Your task to perform on an android device: change the upload size in google photos Image 0: 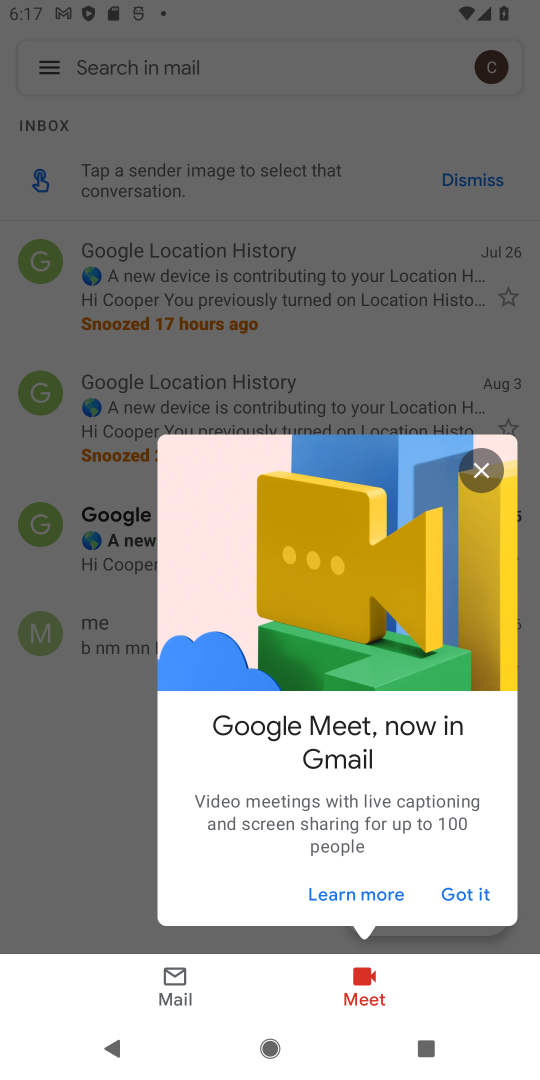
Step 0: press home button
Your task to perform on an android device: change the upload size in google photos Image 1: 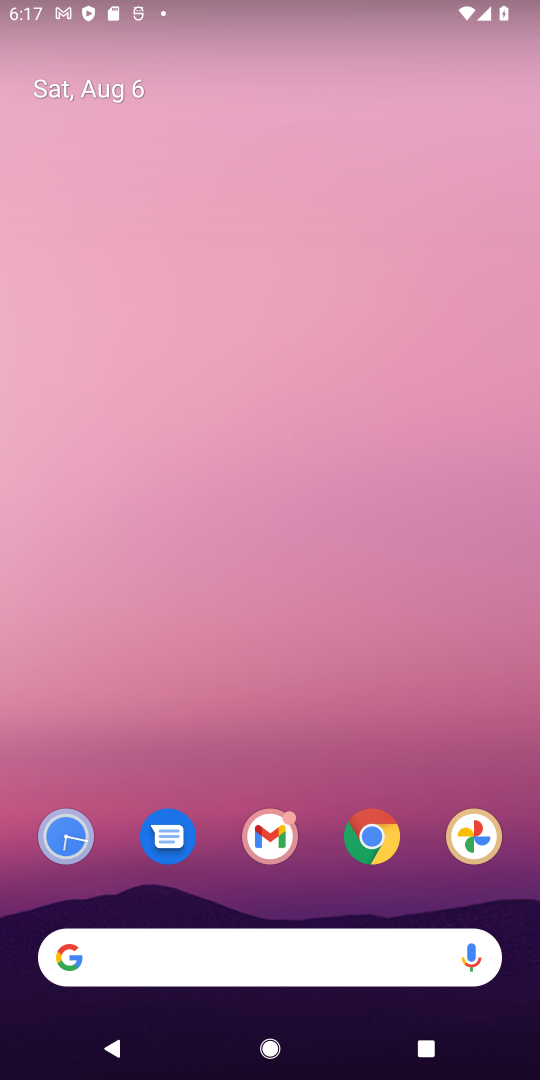
Step 1: drag from (437, 878) to (316, 94)
Your task to perform on an android device: change the upload size in google photos Image 2: 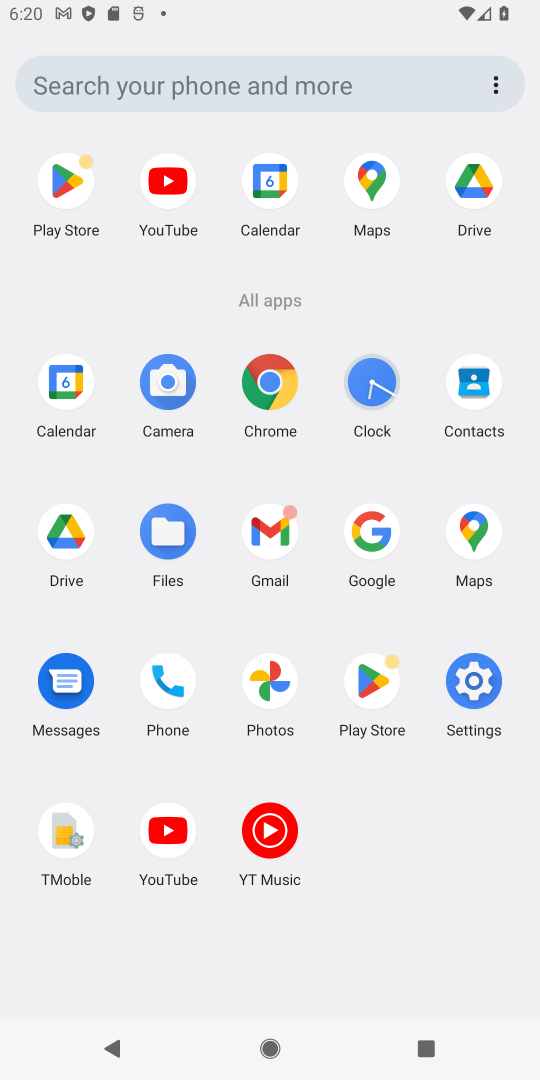
Step 2: click (268, 690)
Your task to perform on an android device: change the upload size in google photos Image 3: 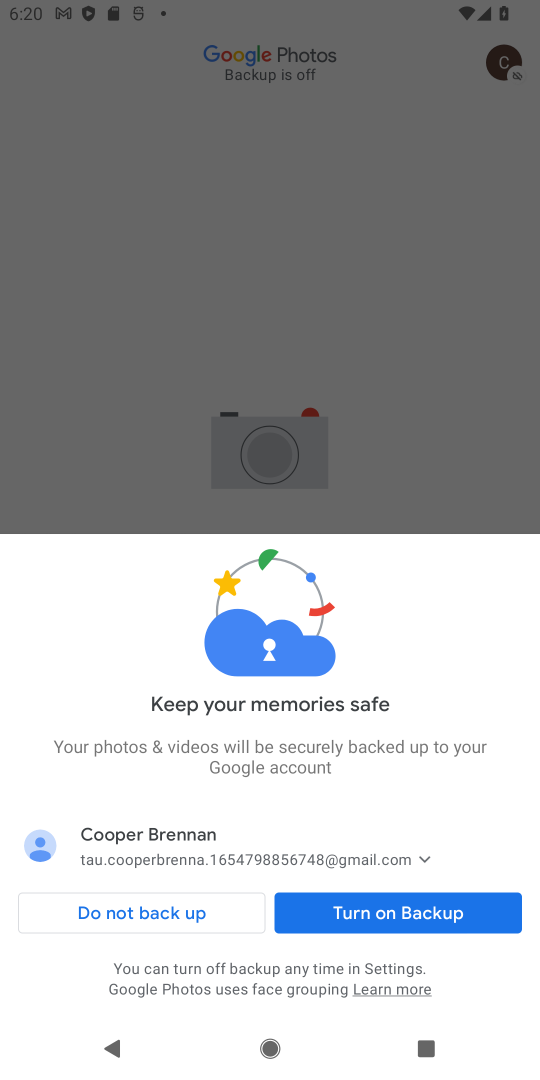
Step 3: click (466, 912)
Your task to perform on an android device: change the upload size in google photos Image 4: 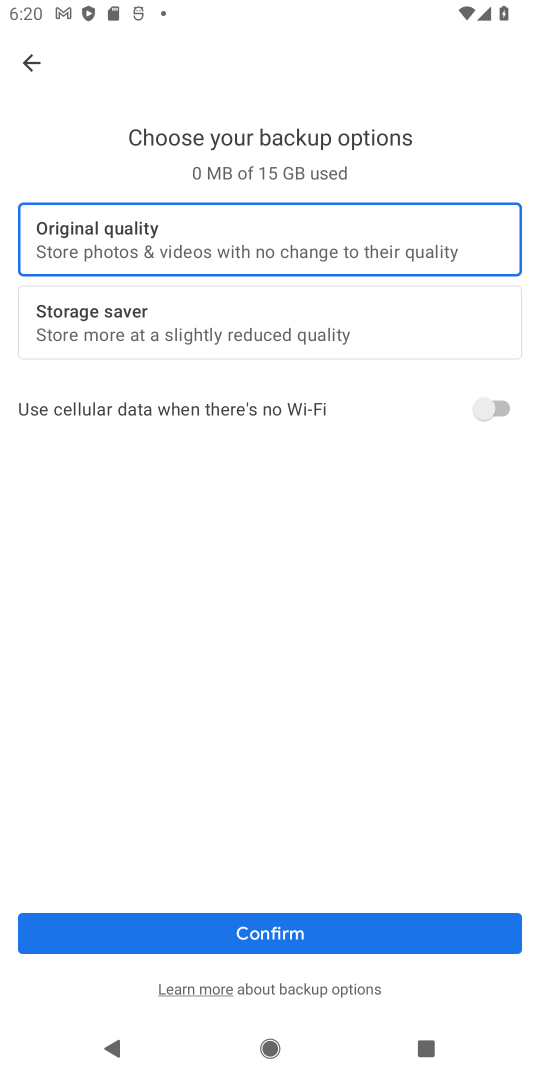
Step 4: click (391, 920)
Your task to perform on an android device: change the upload size in google photos Image 5: 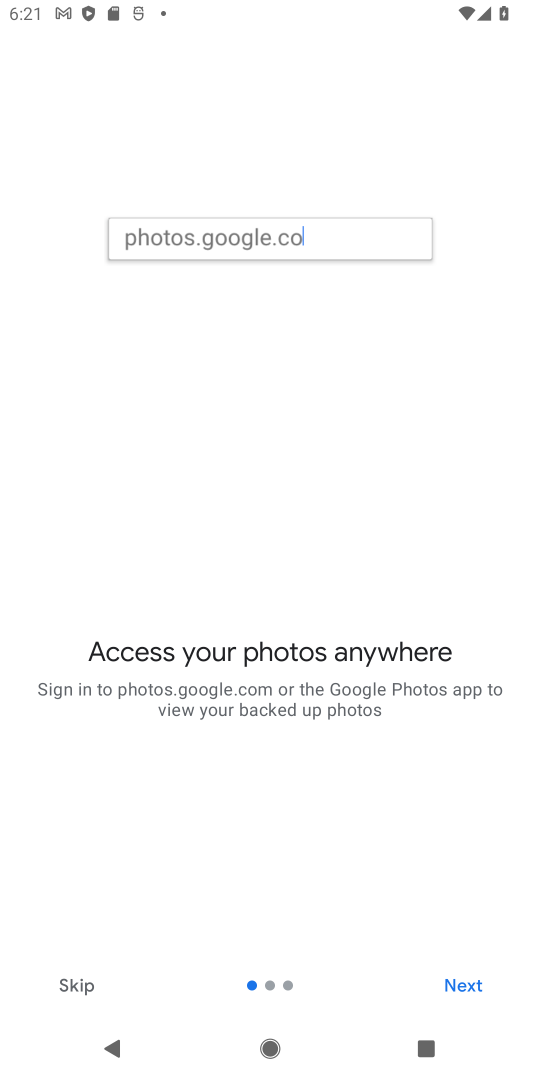
Step 5: click (448, 973)
Your task to perform on an android device: change the upload size in google photos Image 6: 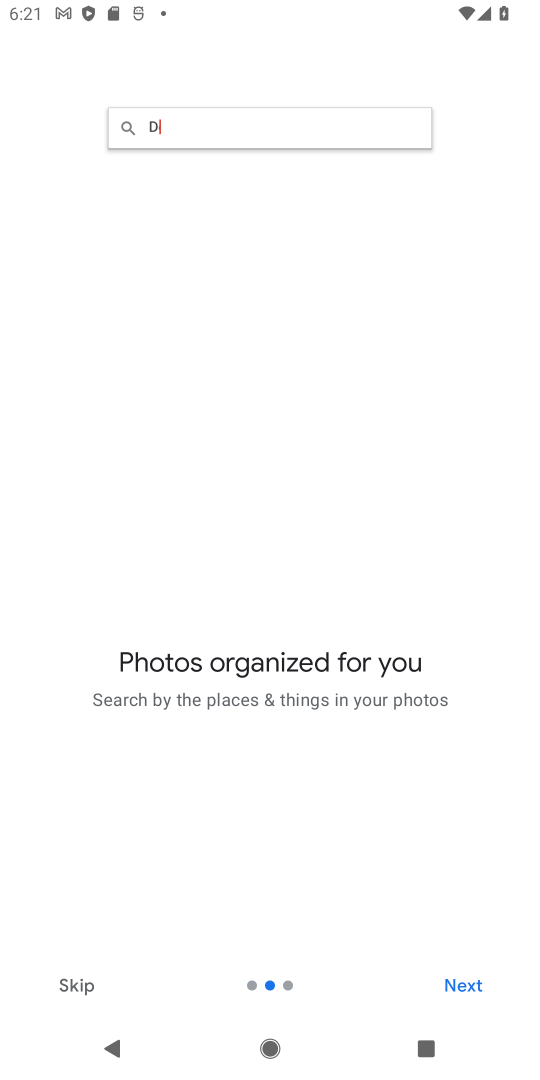
Step 6: click (448, 973)
Your task to perform on an android device: change the upload size in google photos Image 7: 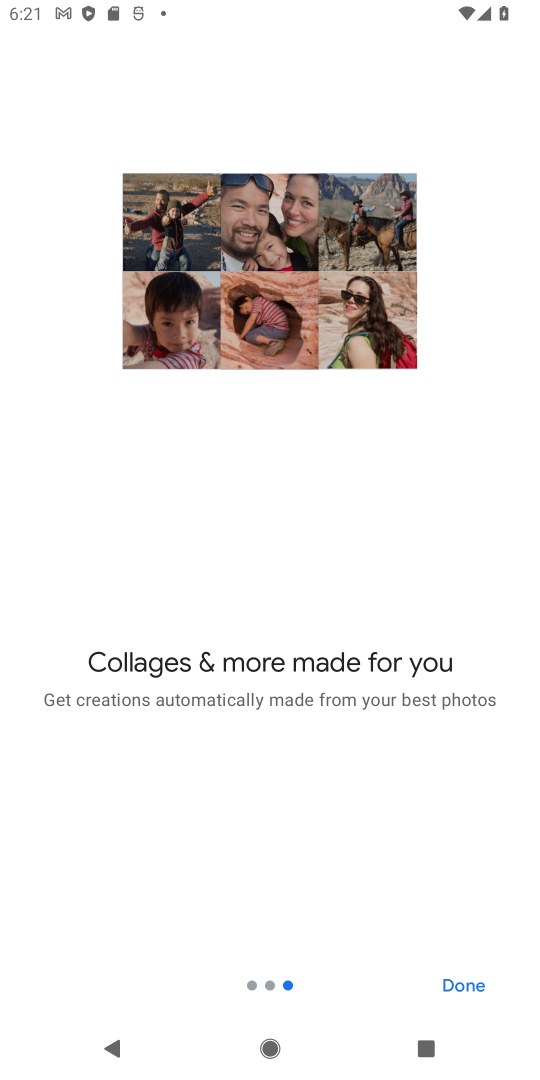
Step 7: click (448, 973)
Your task to perform on an android device: change the upload size in google photos Image 8: 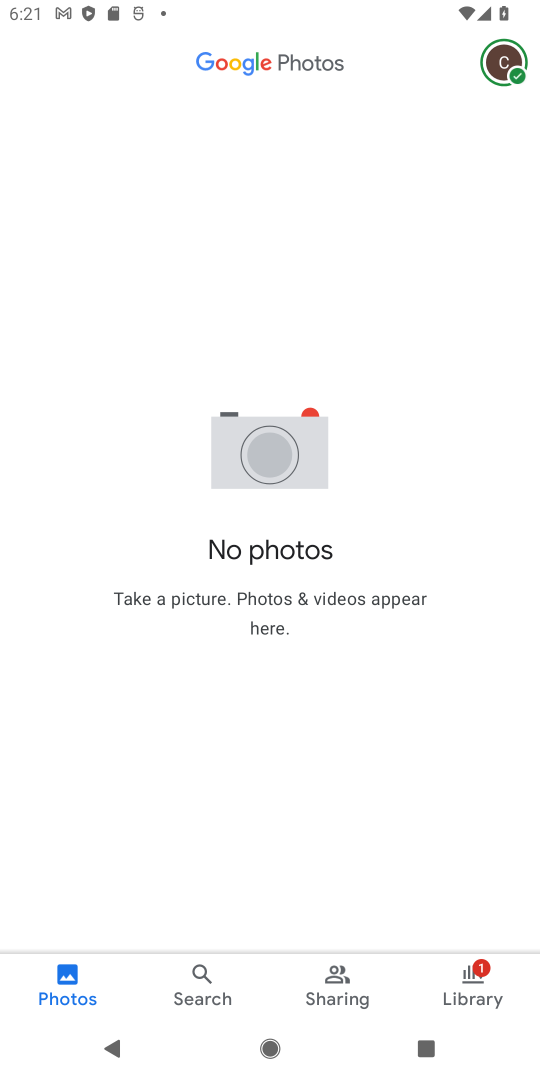
Step 8: task complete